Your task to perform on an android device: Set the phone to "Do not disturb". Image 0: 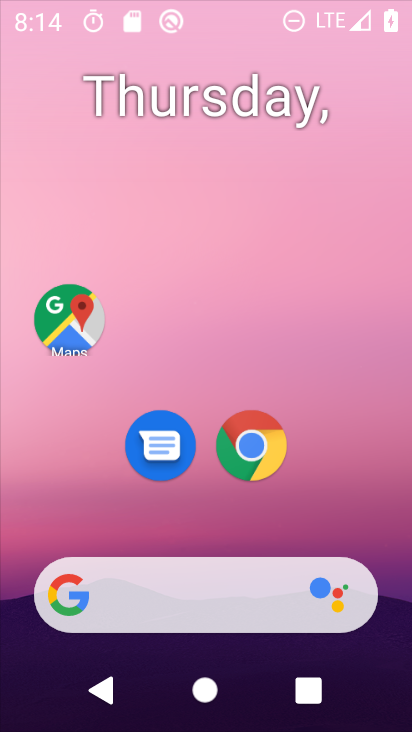
Step 0: drag from (187, 539) to (197, 83)
Your task to perform on an android device: Set the phone to "Do not disturb". Image 1: 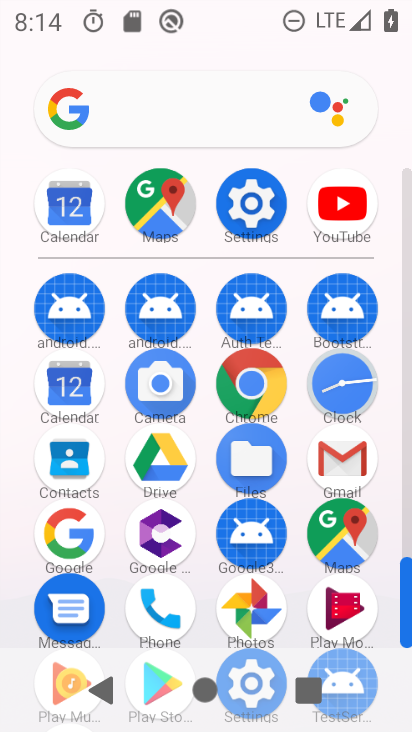
Step 1: click (257, 211)
Your task to perform on an android device: Set the phone to "Do not disturb". Image 2: 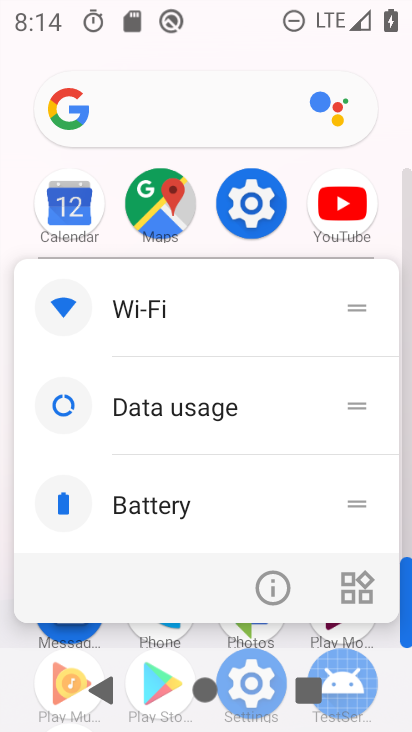
Step 2: click (258, 598)
Your task to perform on an android device: Set the phone to "Do not disturb". Image 3: 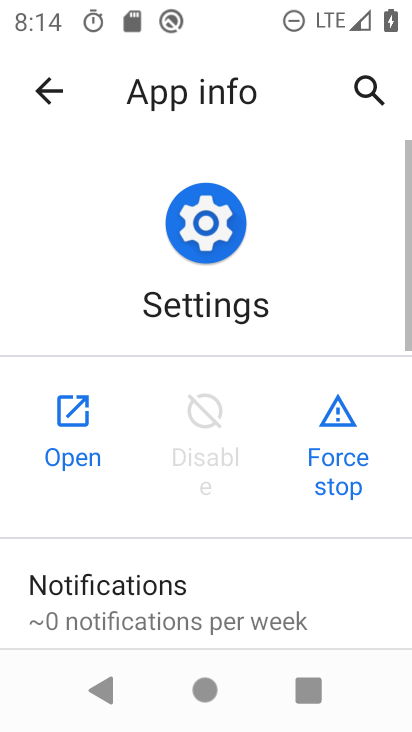
Step 3: click (85, 419)
Your task to perform on an android device: Set the phone to "Do not disturb". Image 4: 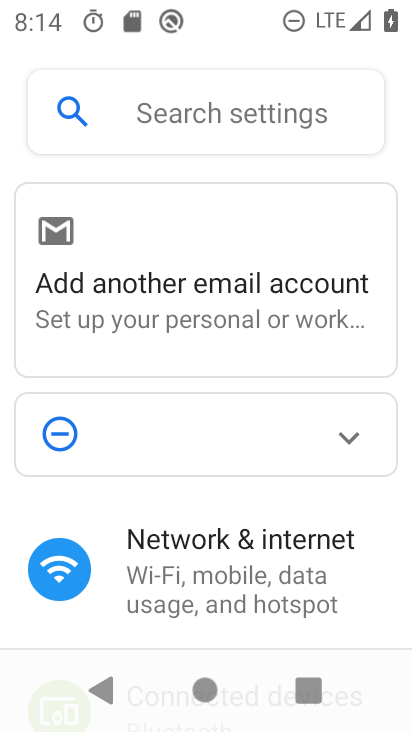
Step 4: drag from (246, 594) to (329, 172)
Your task to perform on an android device: Set the phone to "Do not disturb". Image 5: 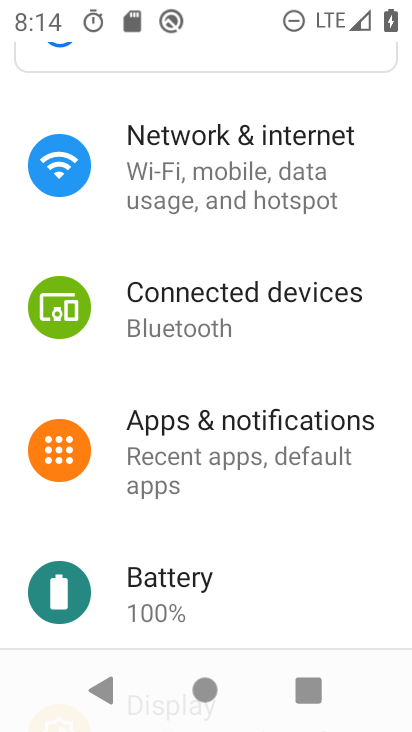
Step 5: click (213, 445)
Your task to perform on an android device: Set the phone to "Do not disturb". Image 6: 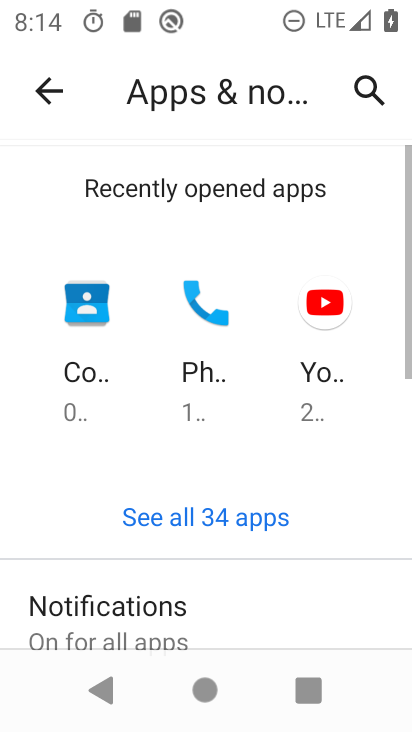
Step 6: drag from (189, 592) to (275, 210)
Your task to perform on an android device: Set the phone to "Do not disturb". Image 7: 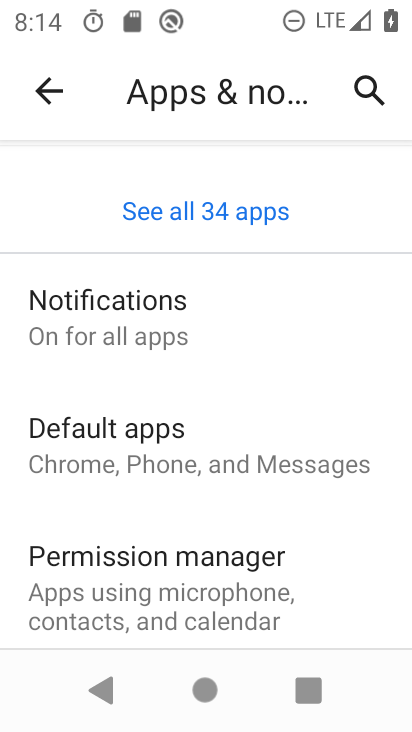
Step 7: click (184, 302)
Your task to perform on an android device: Set the phone to "Do not disturb". Image 8: 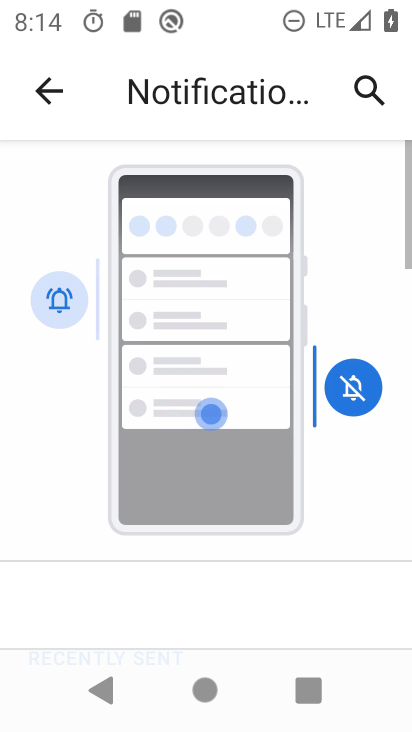
Step 8: drag from (248, 518) to (339, 101)
Your task to perform on an android device: Set the phone to "Do not disturb". Image 9: 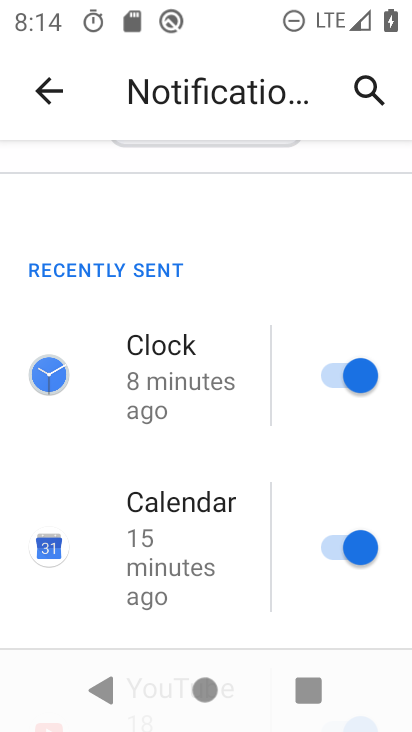
Step 9: drag from (206, 590) to (246, 306)
Your task to perform on an android device: Set the phone to "Do not disturb". Image 10: 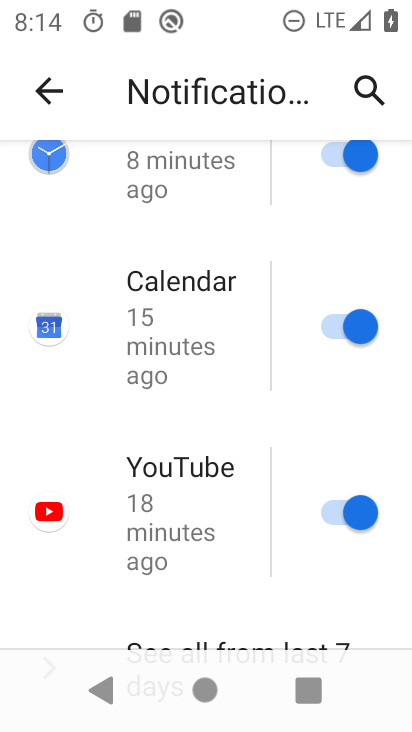
Step 10: drag from (227, 571) to (320, 134)
Your task to perform on an android device: Set the phone to "Do not disturb". Image 11: 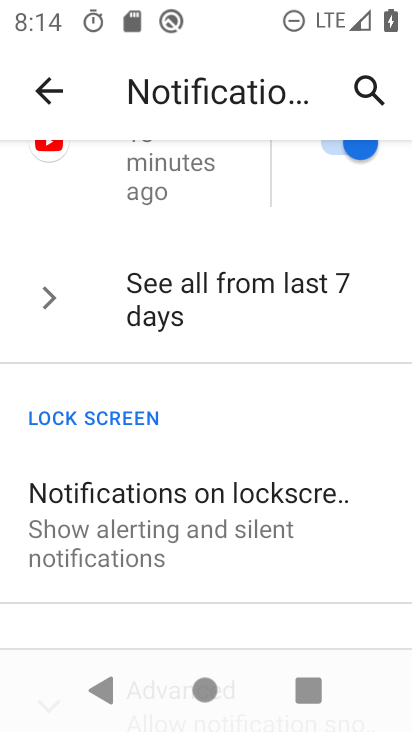
Step 11: drag from (251, 511) to (266, 220)
Your task to perform on an android device: Set the phone to "Do not disturb". Image 12: 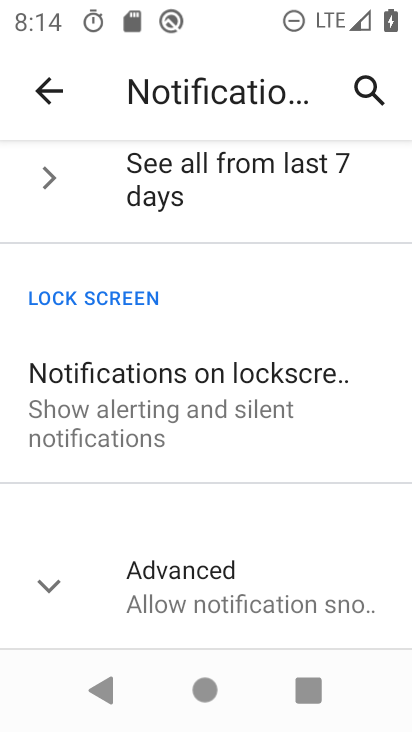
Step 12: click (214, 590)
Your task to perform on an android device: Set the phone to "Do not disturb". Image 13: 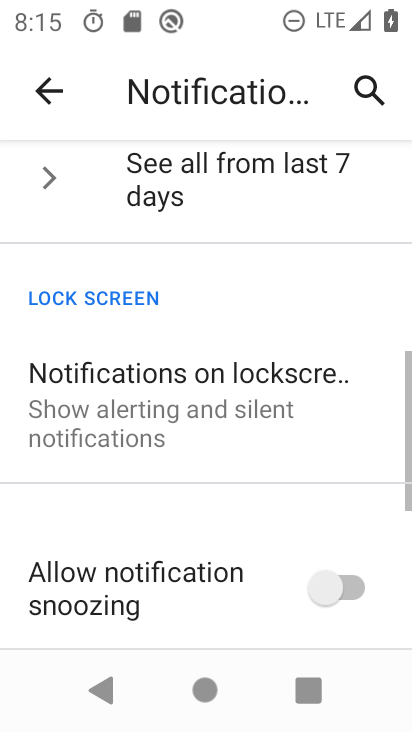
Step 13: drag from (210, 608) to (256, 222)
Your task to perform on an android device: Set the phone to "Do not disturb". Image 14: 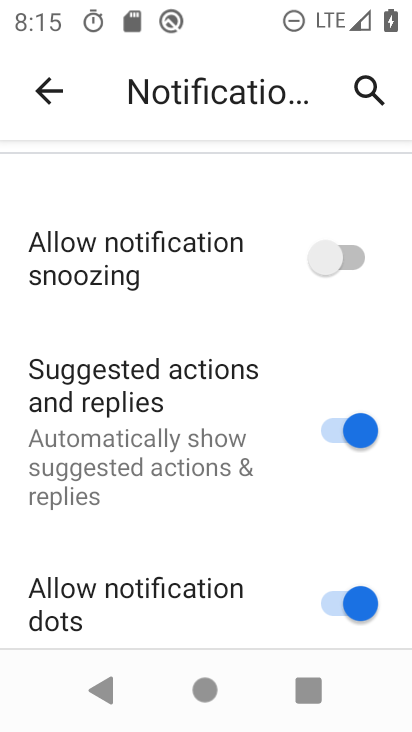
Step 14: drag from (230, 601) to (217, 335)
Your task to perform on an android device: Set the phone to "Do not disturb". Image 15: 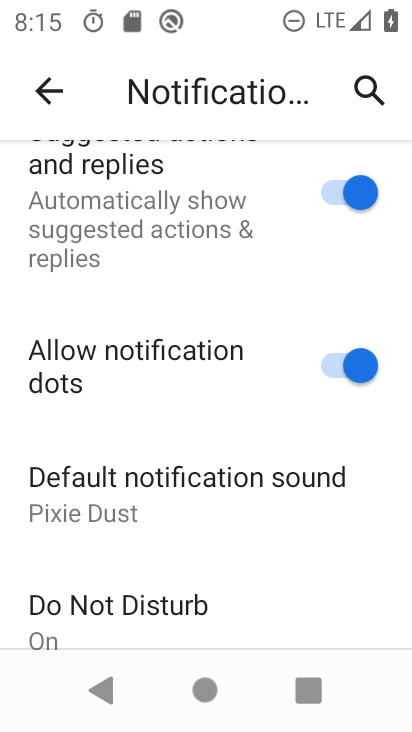
Step 15: drag from (162, 605) to (232, 260)
Your task to perform on an android device: Set the phone to "Do not disturb". Image 16: 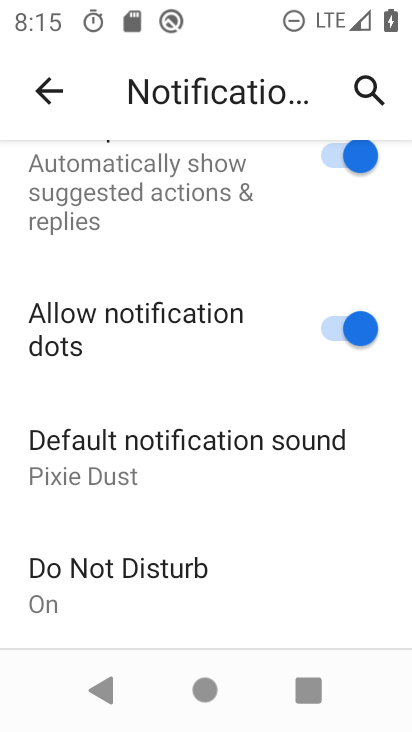
Step 16: drag from (220, 600) to (207, 316)
Your task to perform on an android device: Set the phone to "Do not disturb". Image 17: 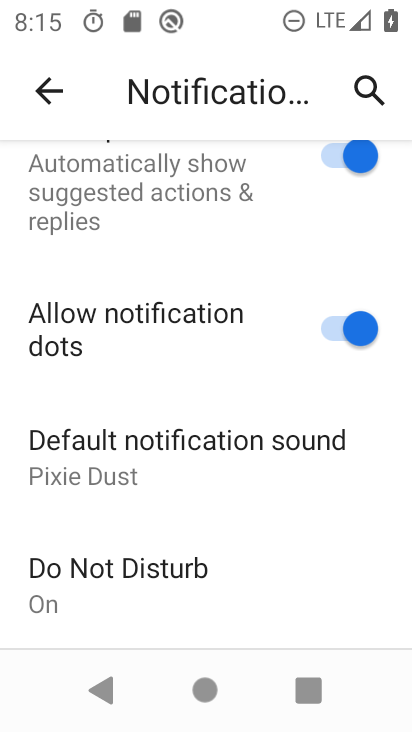
Step 17: drag from (204, 274) to (261, 485)
Your task to perform on an android device: Set the phone to "Do not disturb". Image 18: 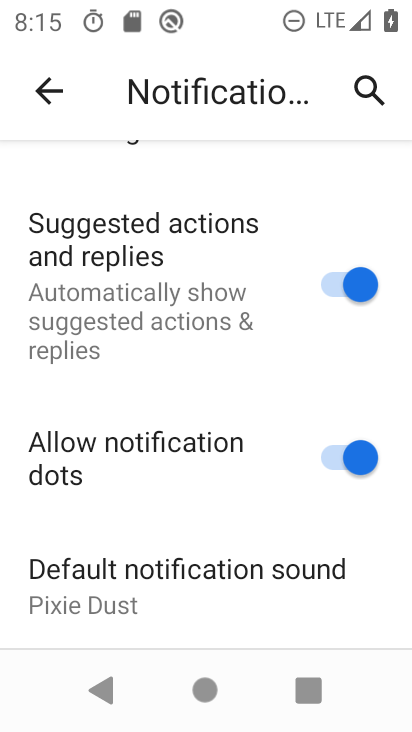
Step 18: drag from (281, 527) to (320, 313)
Your task to perform on an android device: Set the phone to "Do not disturb". Image 19: 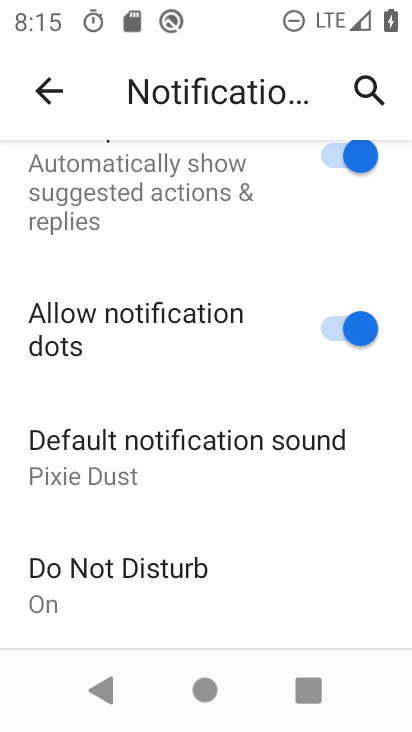
Step 19: click (179, 594)
Your task to perform on an android device: Set the phone to "Do not disturb". Image 20: 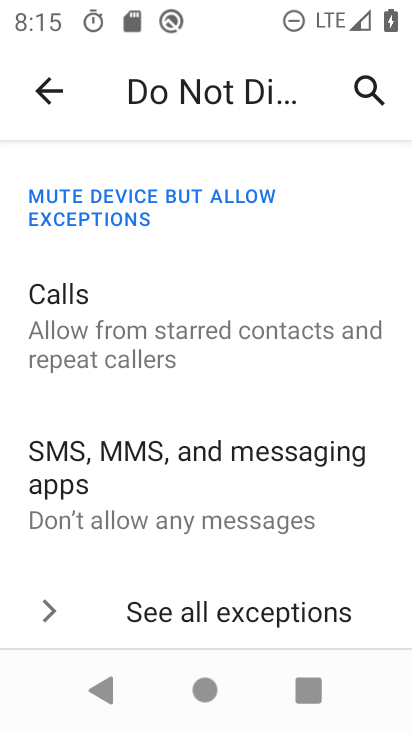
Step 20: drag from (181, 615) to (237, 313)
Your task to perform on an android device: Set the phone to "Do not disturb". Image 21: 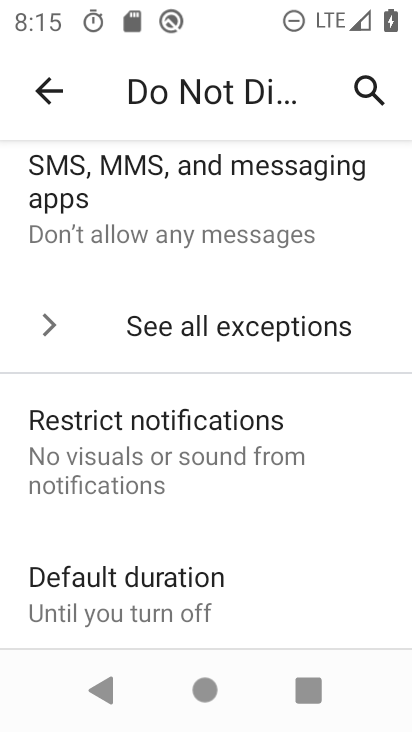
Step 21: drag from (215, 571) to (260, 223)
Your task to perform on an android device: Set the phone to "Do not disturb". Image 22: 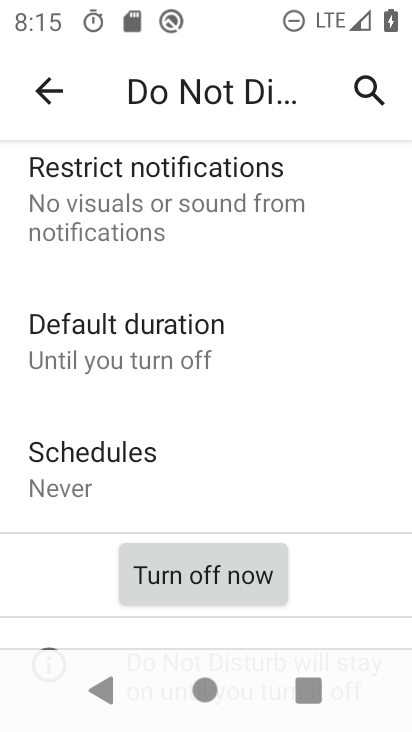
Step 22: drag from (196, 522) to (237, 204)
Your task to perform on an android device: Set the phone to "Do not disturb". Image 23: 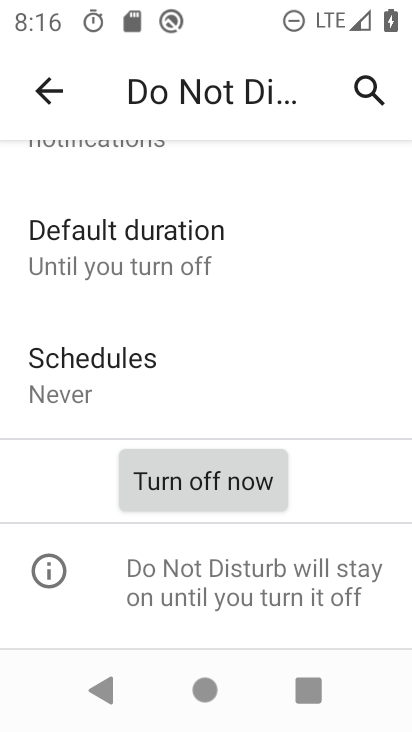
Step 23: click (196, 481)
Your task to perform on an android device: Set the phone to "Do not disturb". Image 24: 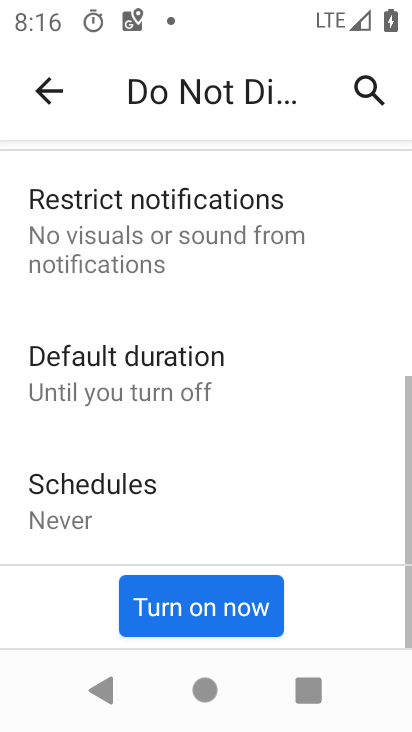
Step 24: task complete